Your task to perform on an android device: open app "VLC for Android" (install if not already installed), go to login, and select forgot password Image 0: 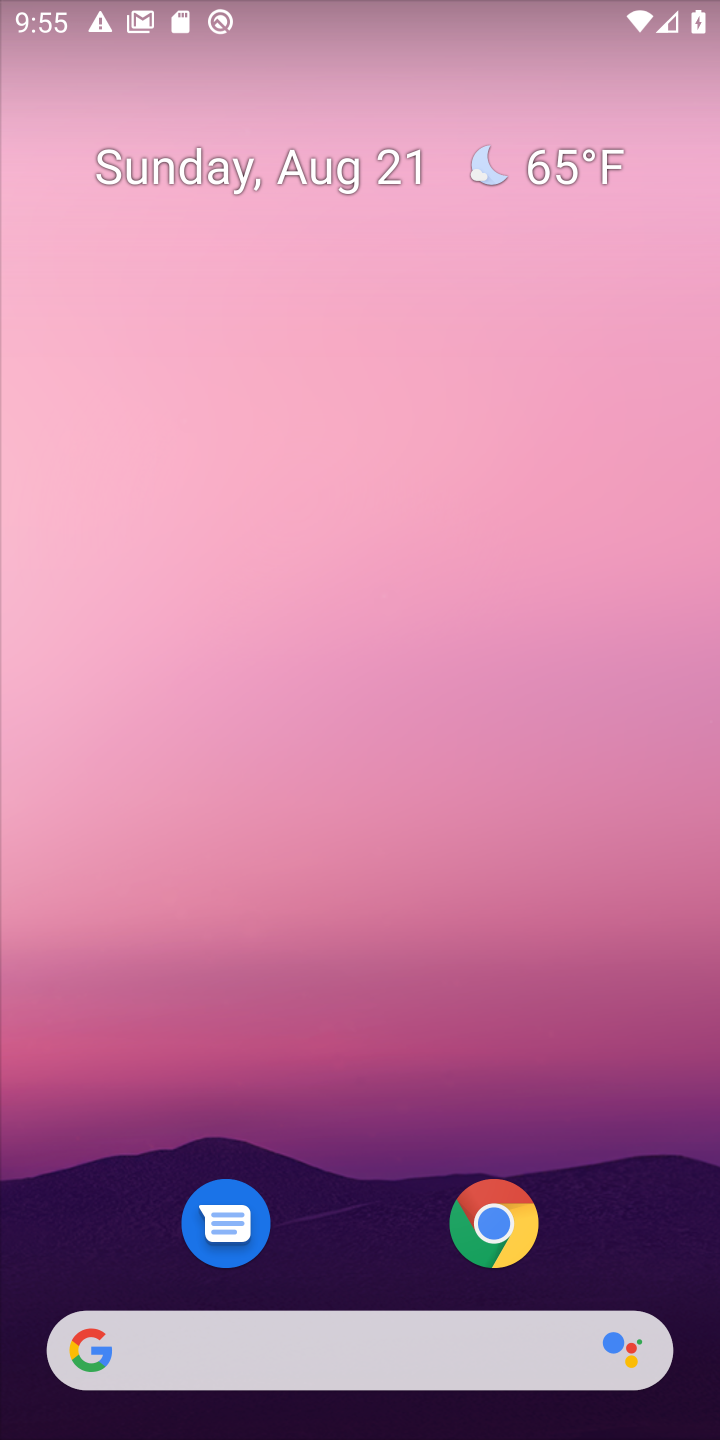
Step 0: press home button
Your task to perform on an android device: open app "VLC for Android" (install if not already installed), go to login, and select forgot password Image 1: 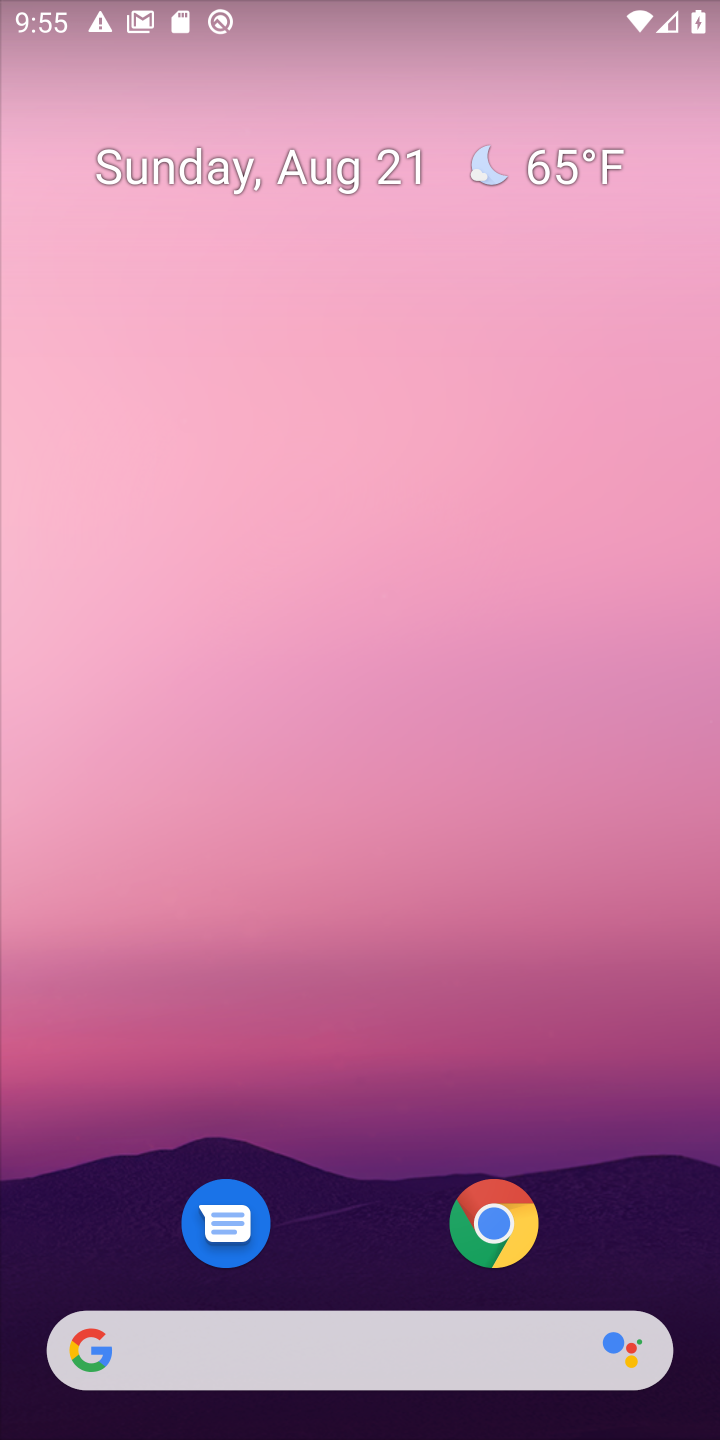
Step 1: drag from (621, 1131) to (589, 199)
Your task to perform on an android device: open app "VLC for Android" (install if not already installed), go to login, and select forgot password Image 2: 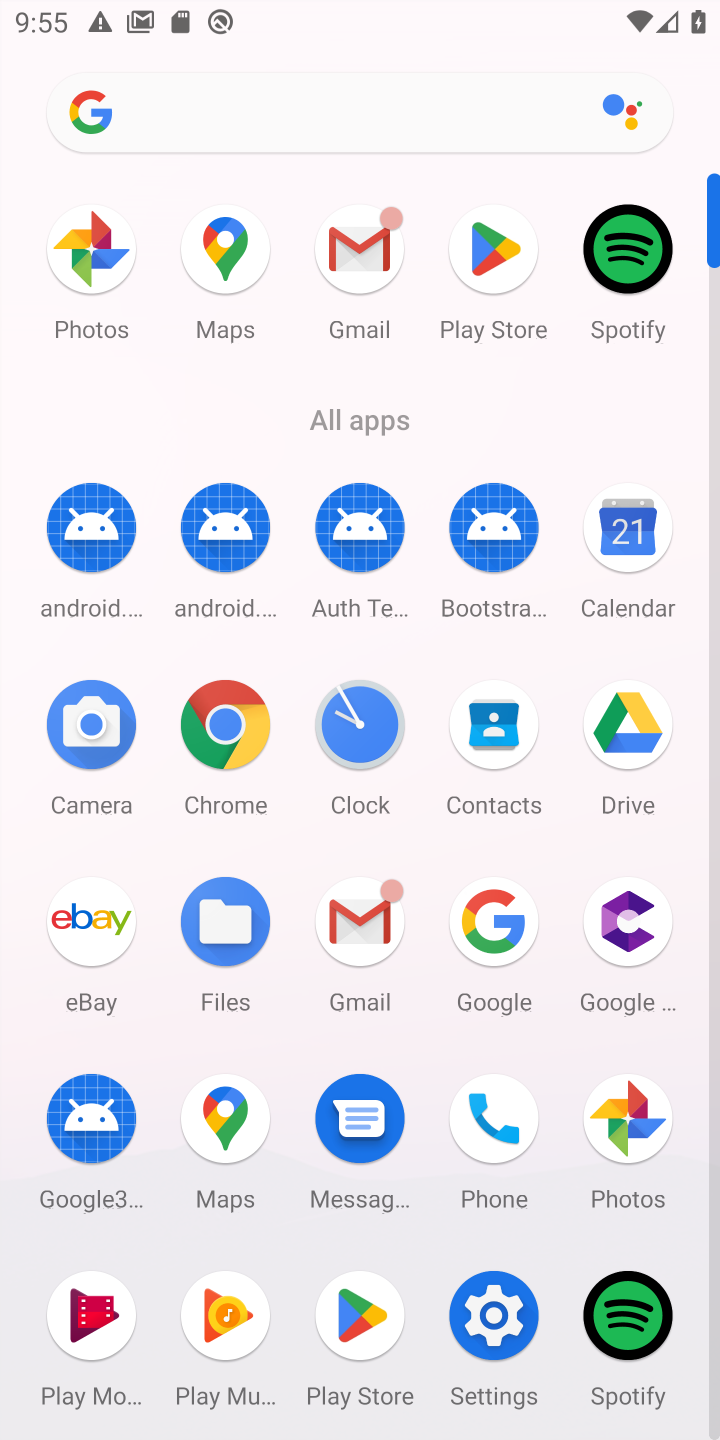
Step 2: click (501, 257)
Your task to perform on an android device: open app "VLC for Android" (install if not already installed), go to login, and select forgot password Image 3: 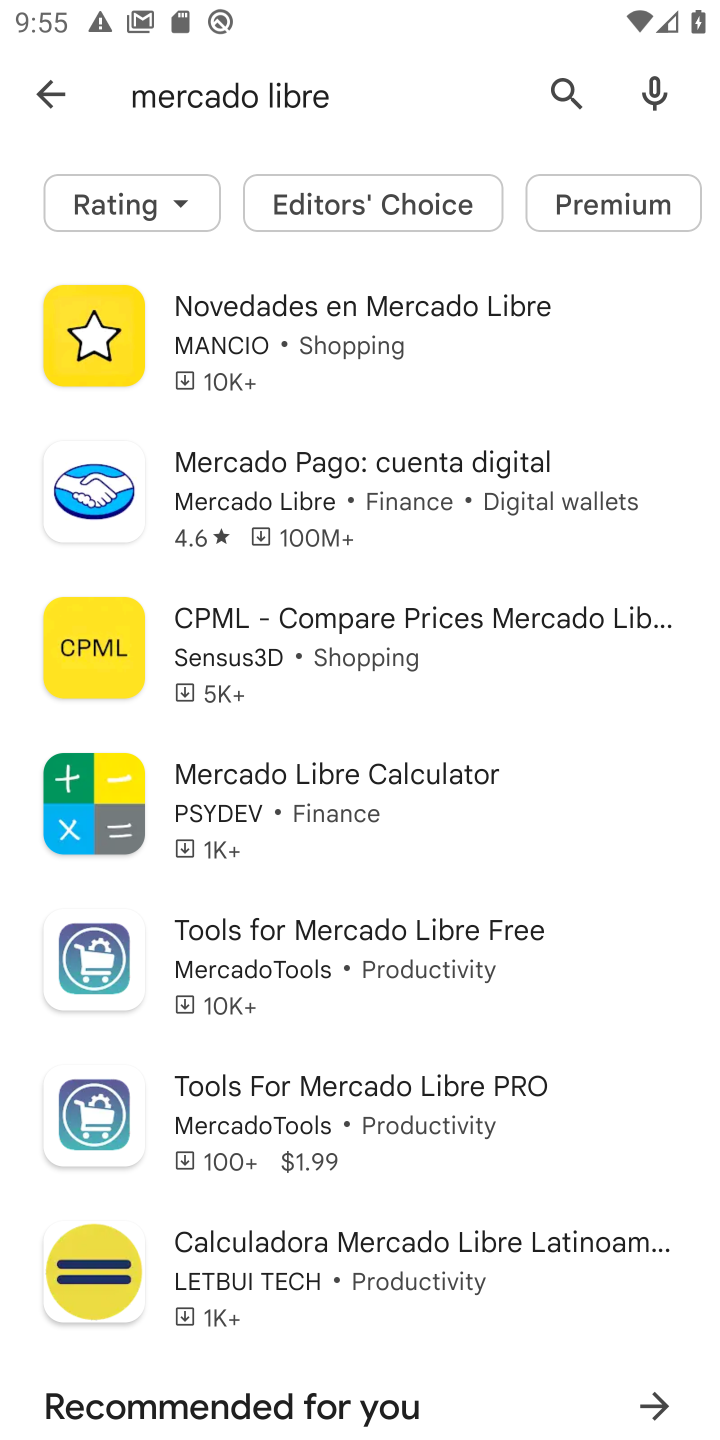
Step 3: press back button
Your task to perform on an android device: open app "VLC for Android" (install if not already installed), go to login, and select forgot password Image 4: 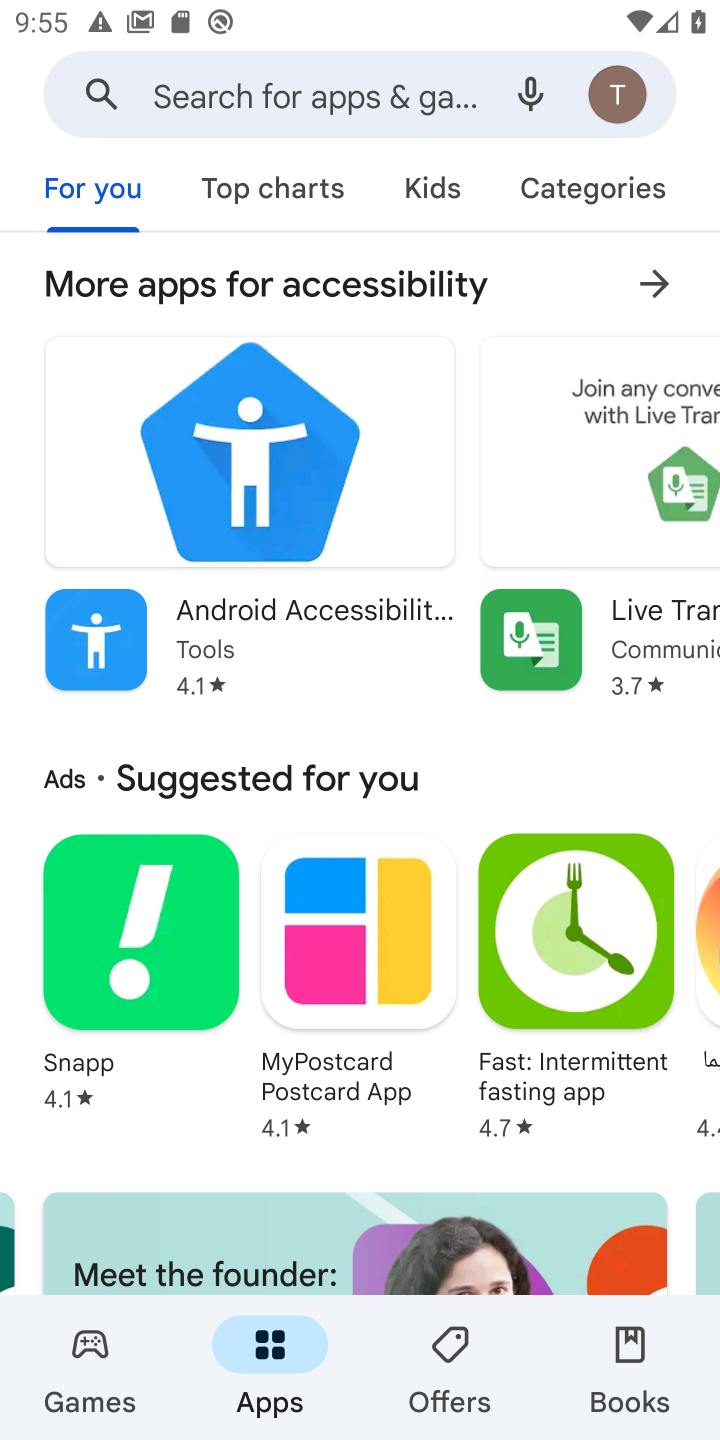
Step 4: click (319, 88)
Your task to perform on an android device: open app "VLC for Android" (install if not already installed), go to login, and select forgot password Image 5: 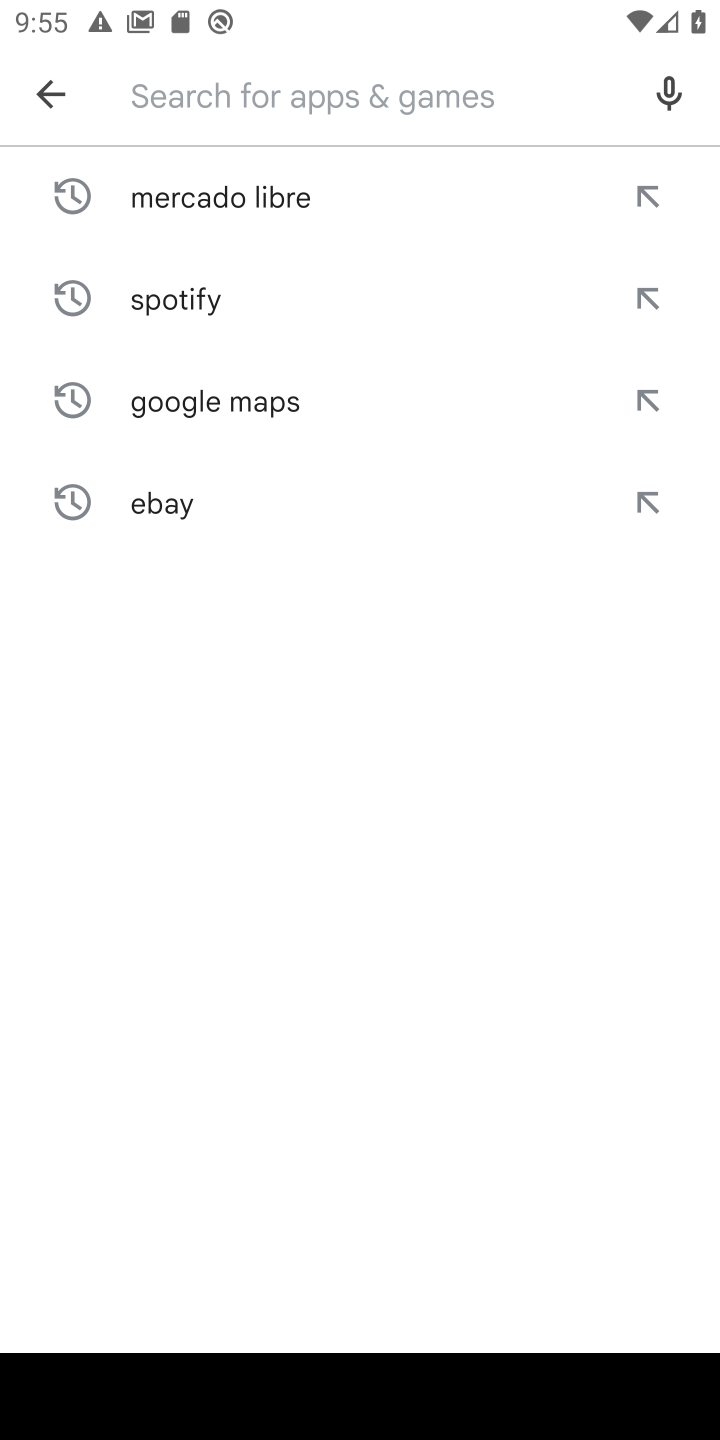
Step 5: type "VLC for Android"
Your task to perform on an android device: open app "VLC for Android" (install if not already installed), go to login, and select forgot password Image 6: 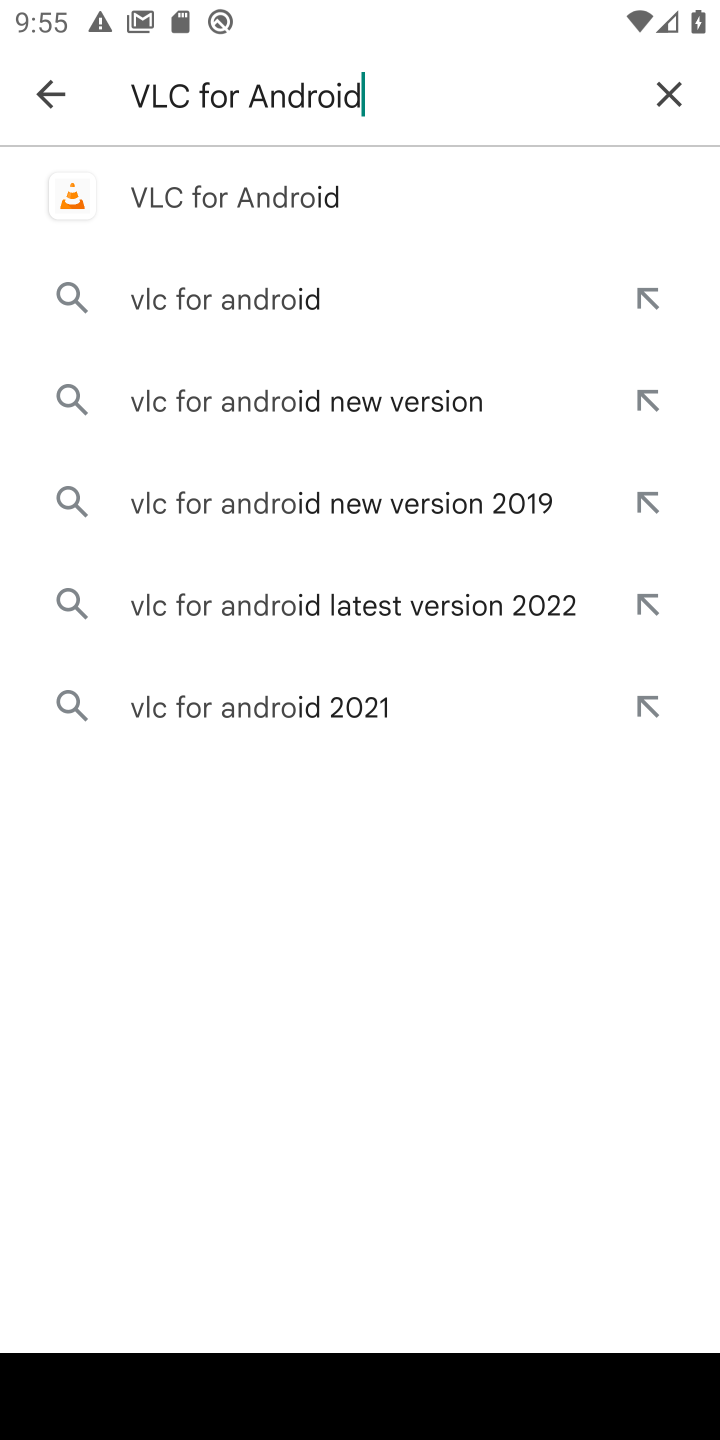
Step 6: press enter
Your task to perform on an android device: open app "VLC for Android" (install if not already installed), go to login, and select forgot password Image 7: 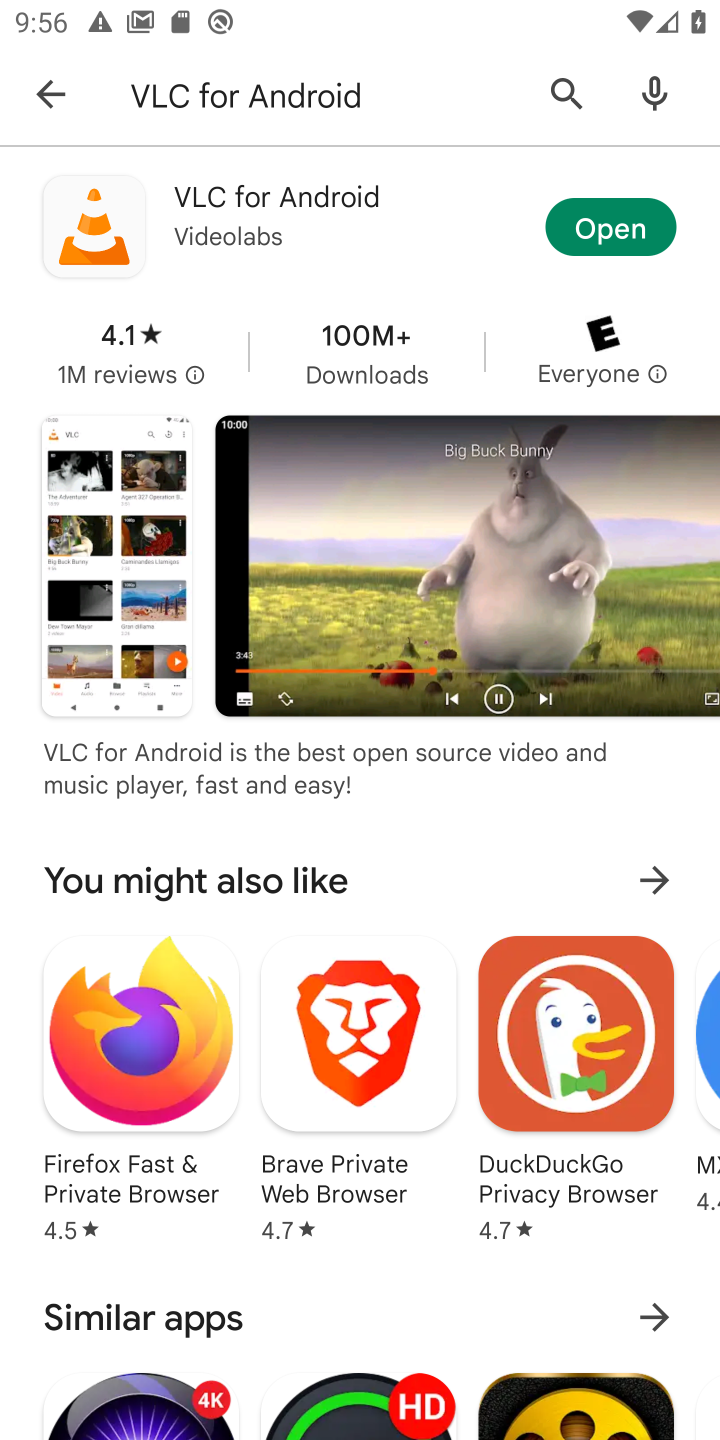
Step 7: click (614, 228)
Your task to perform on an android device: open app "VLC for Android" (install if not already installed), go to login, and select forgot password Image 8: 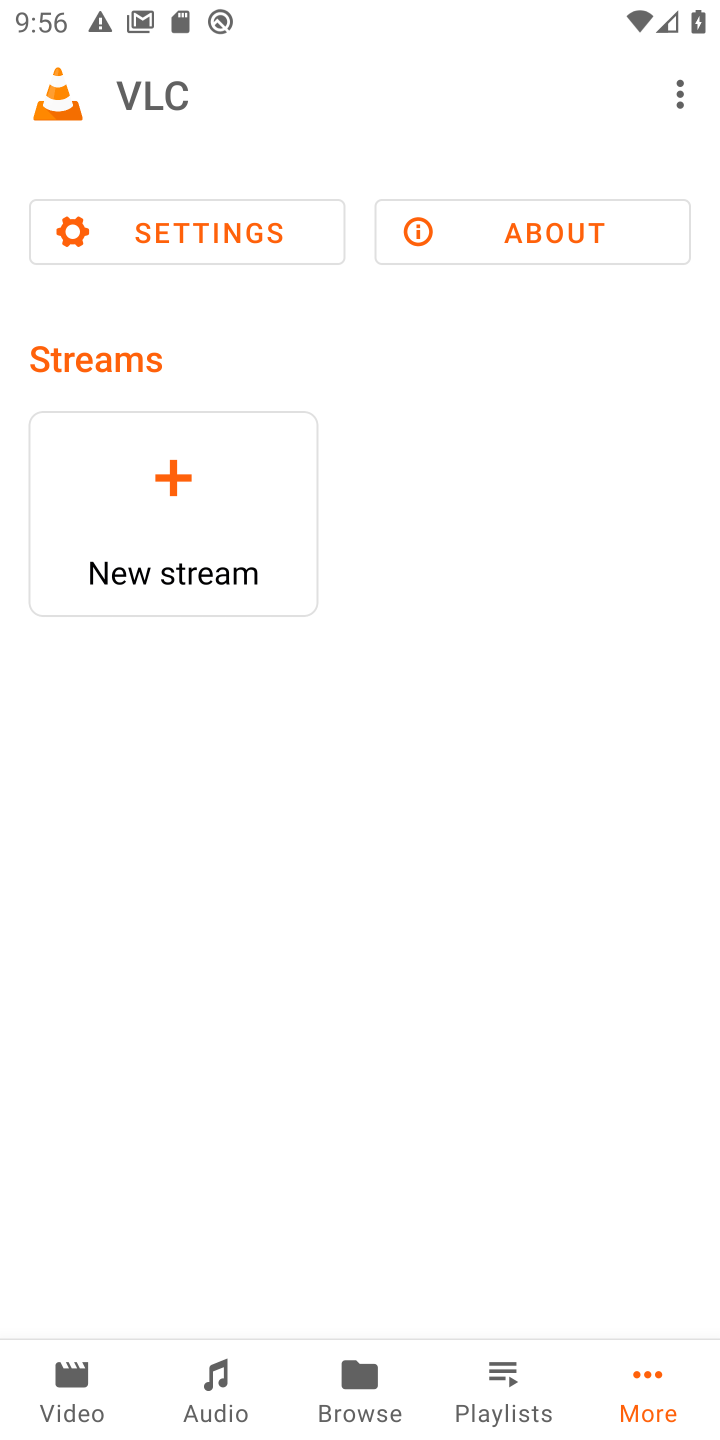
Step 8: click (60, 96)
Your task to perform on an android device: open app "VLC for Android" (install if not already installed), go to login, and select forgot password Image 9: 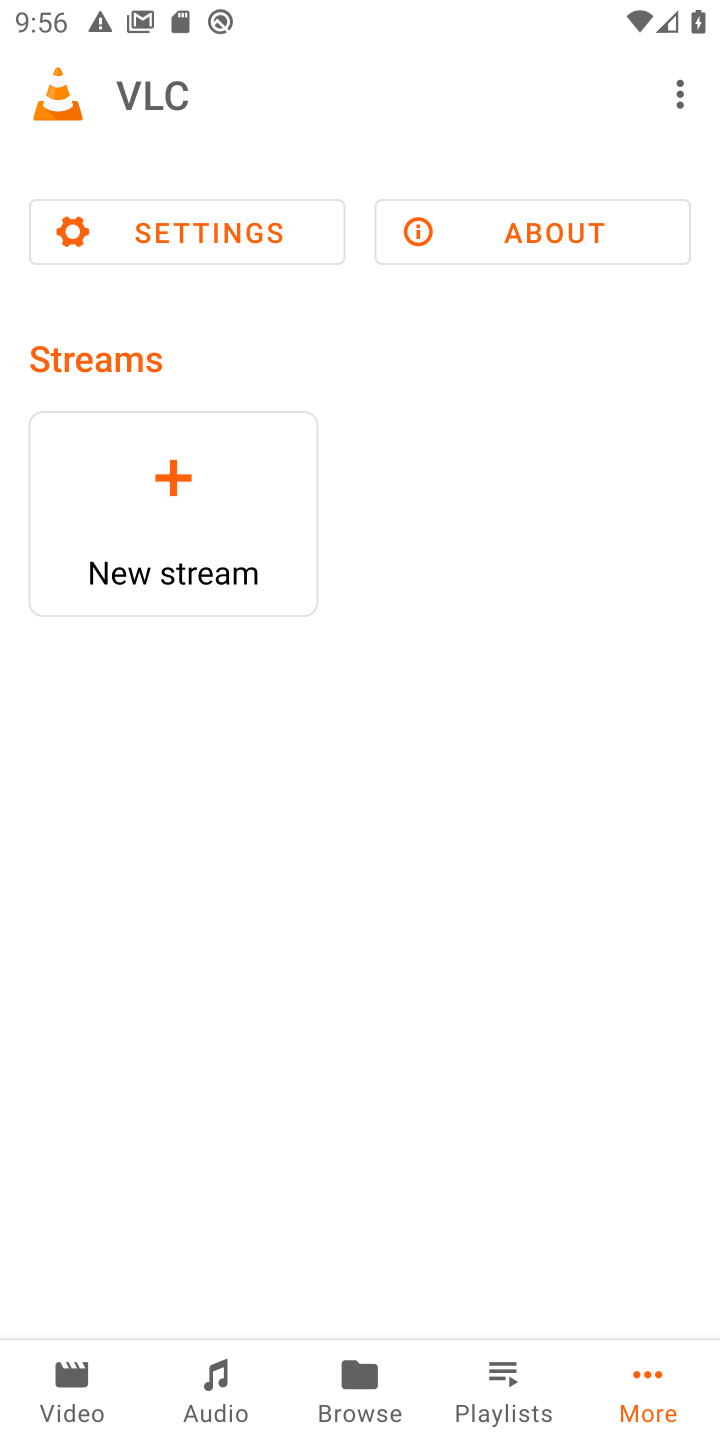
Step 9: click (679, 101)
Your task to perform on an android device: open app "VLC for Android" (install if not already installed), go to login, and select forgot password Image 10: 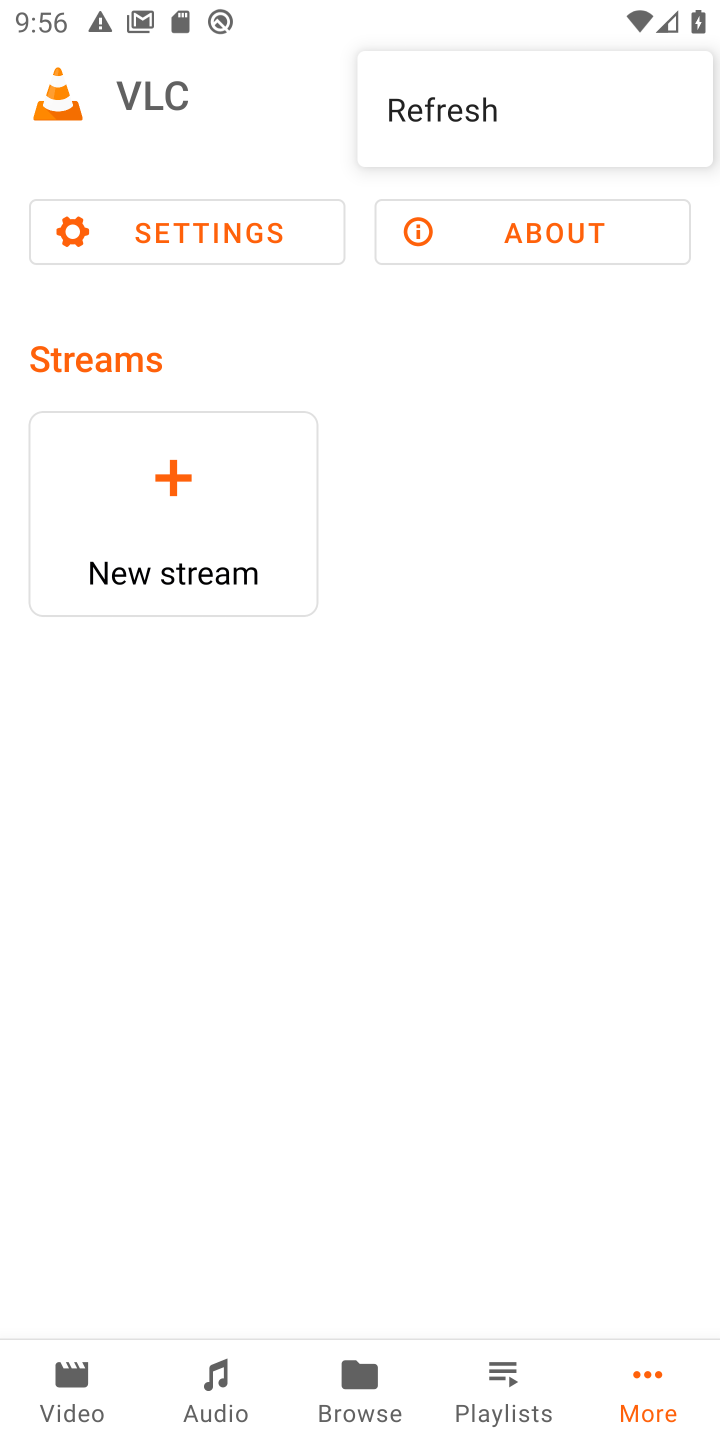
Step 10: click (617, 478)
Your task to perform on an android device: open app "VLC for Android" (install if not already installed), go to login, and select forgot password Image 11: 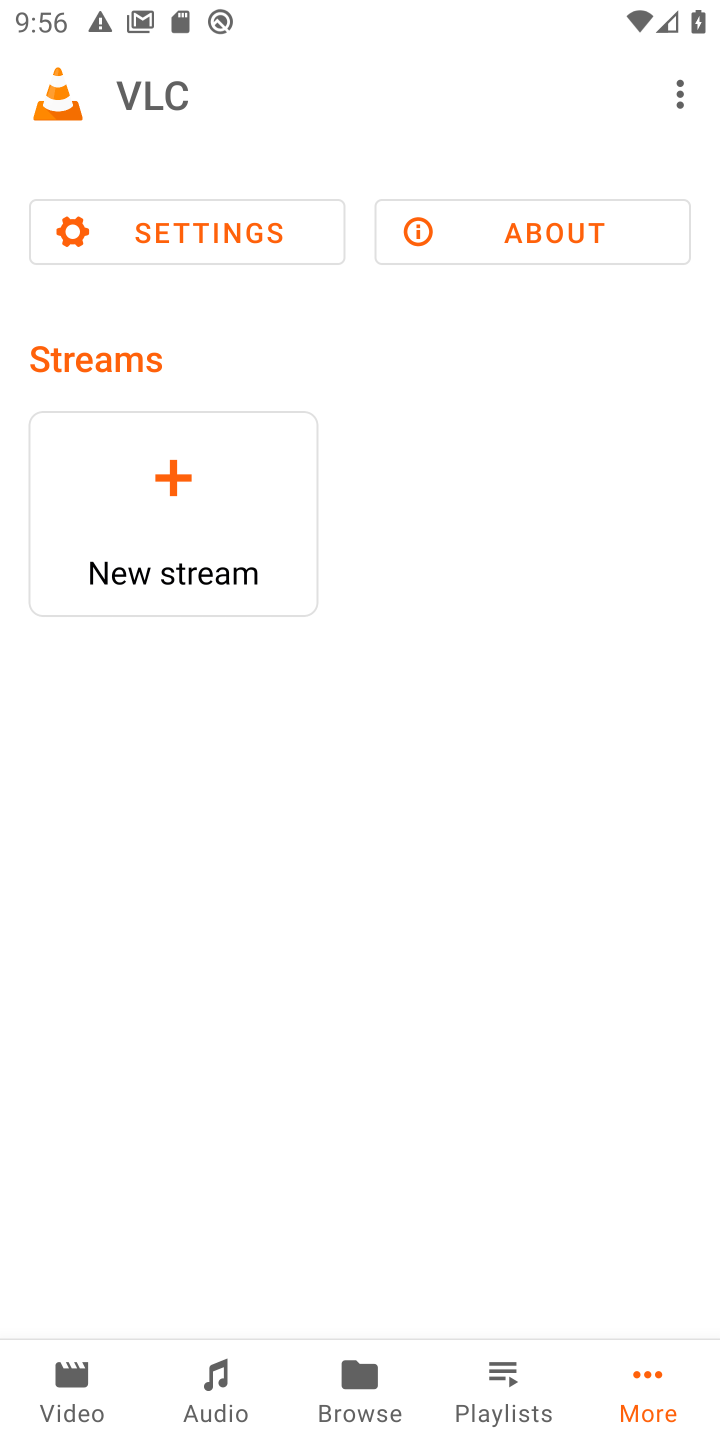
Step 11: click (651, 1396)
Your task to perform on an android device: open app "VLC for Android" (install if not already installed), go to login, and select forgot password Image 12: 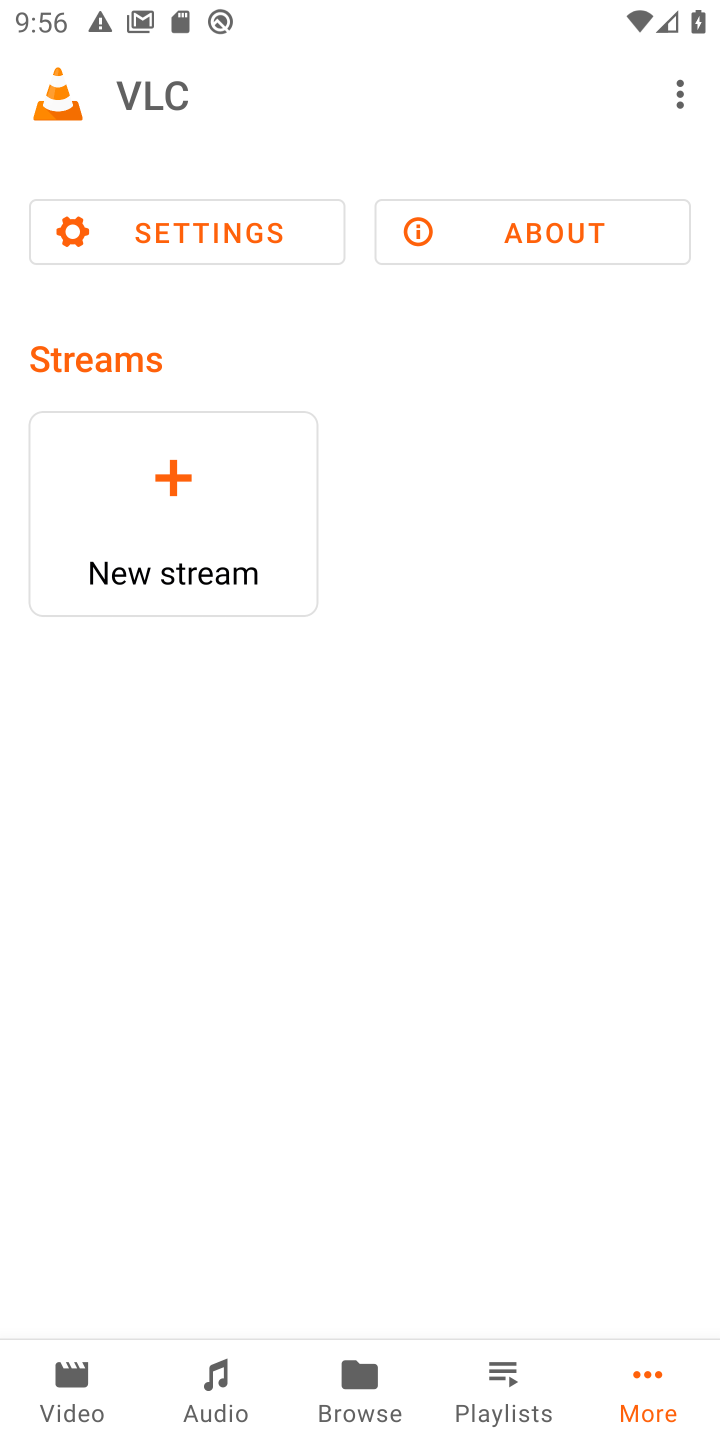
Step 12: click (201, 235)
Your task to perform on an android device: open app "VLC for Android" (install if not already installed), go to login, and select forgot password Image 13: 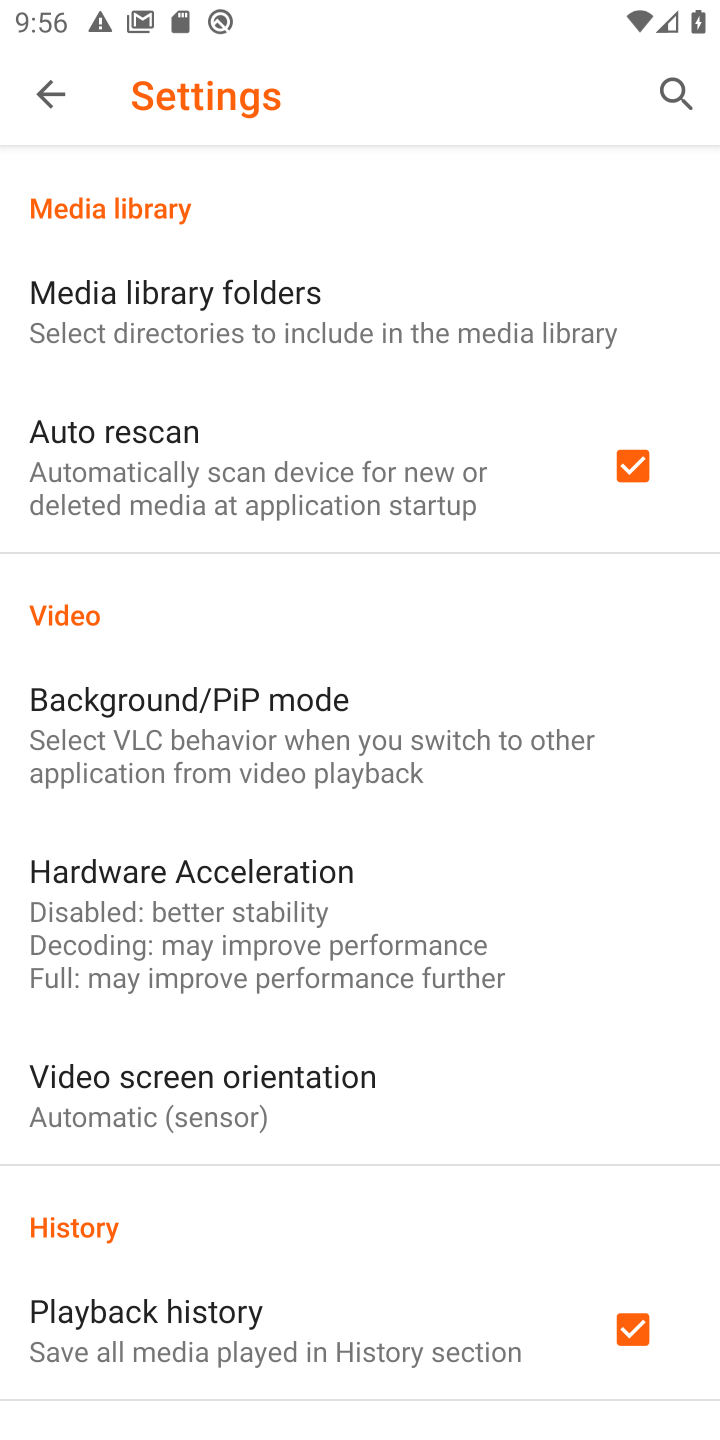
Step 13: drag from (518, 952) to (528, 411)
Your task to perform on an android device: open app "VLC for Android" (install if not already installed), go to login, and select forgot password Image 14: 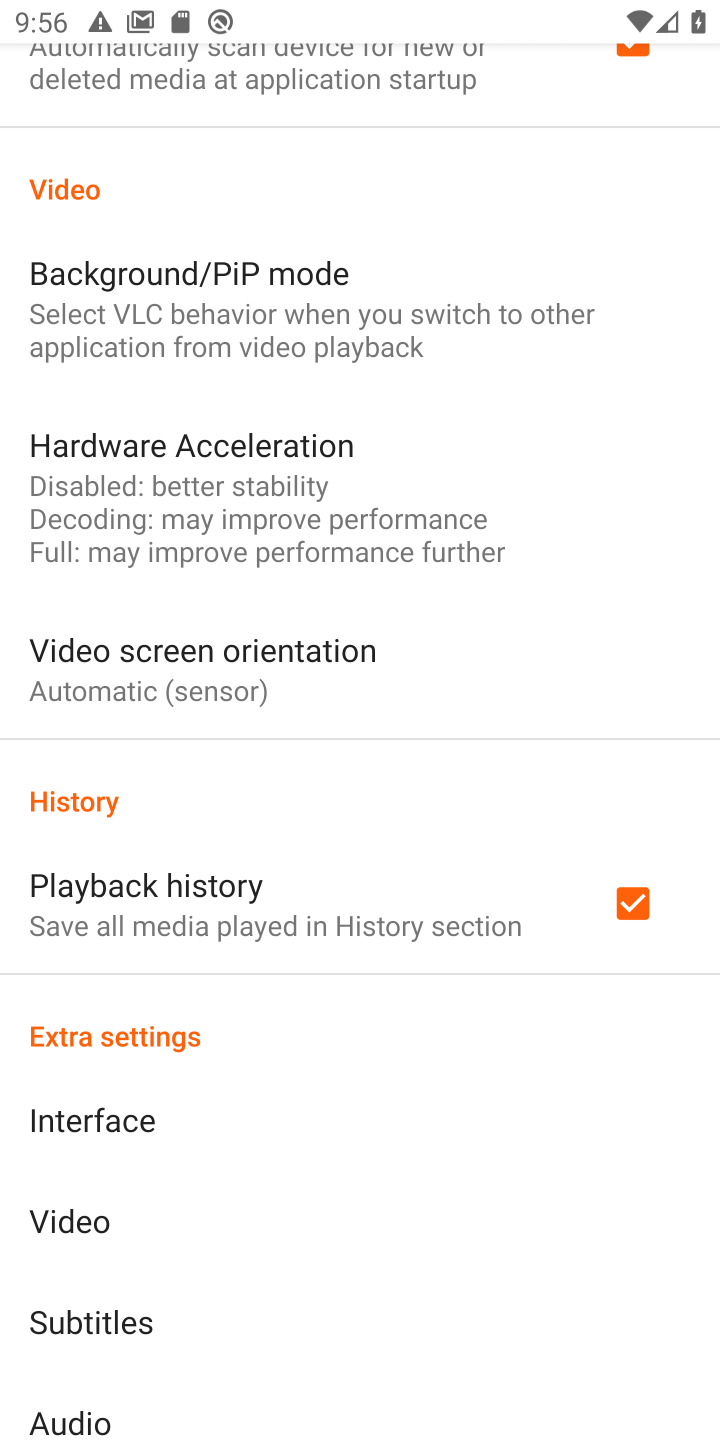
Step 14: press back button
Your task to perform on an android device: open app "VLC for Android" (install if not already installed), go to login, and select forgot password Image 15: 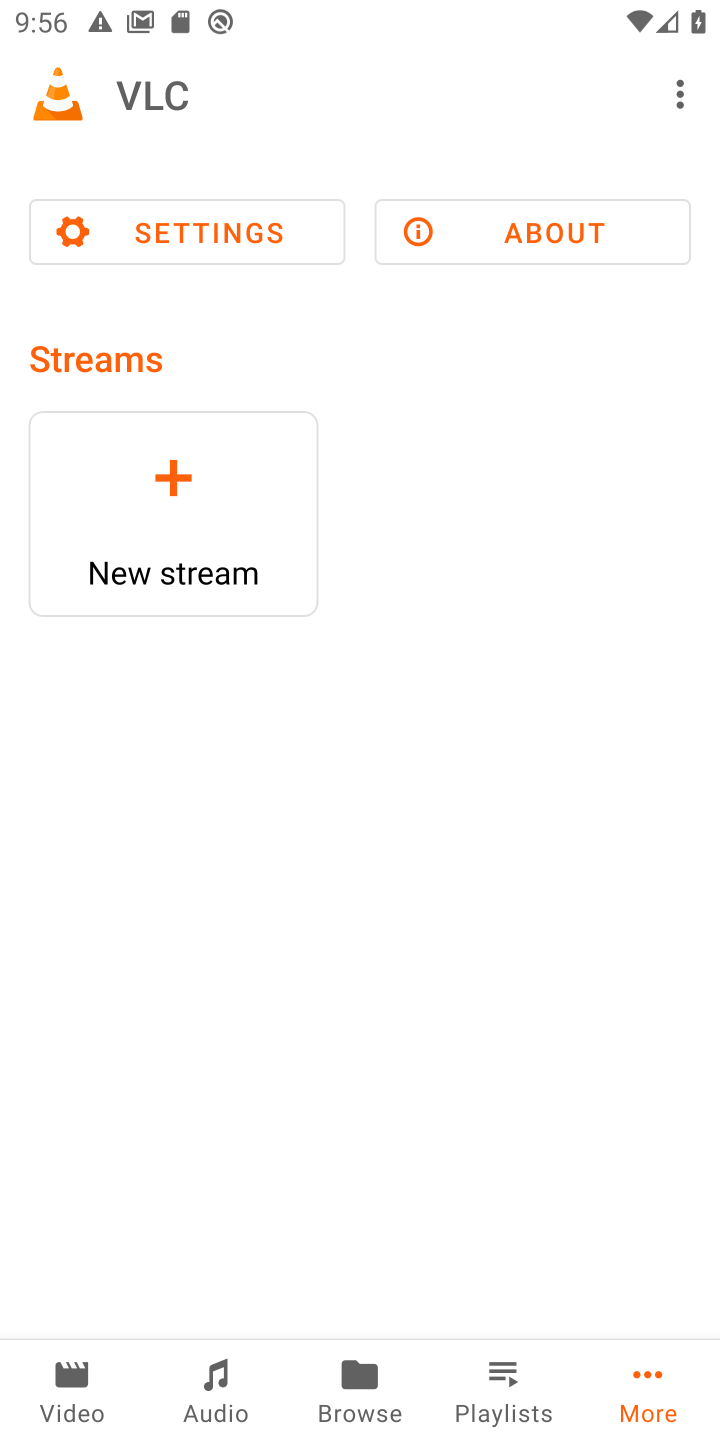
Step 15: click (165, 96)
Your task to perform on an android device: open app "VLC for Android" (install if not already installed), go to login, and select forgot password Image 16: 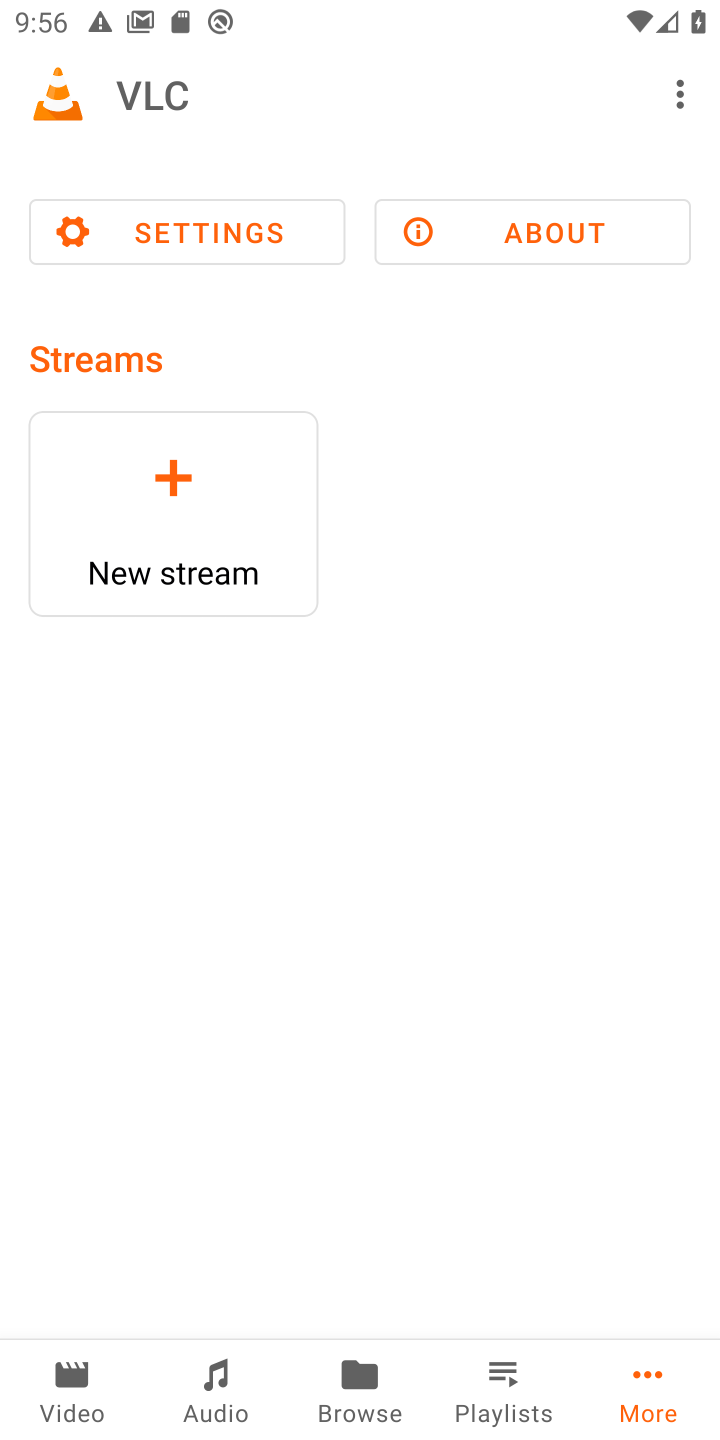
Step 16: click (152, 94)
Your task to perform on an android device: open app "VLC for Android" (install if not already installed), go to login, and select forgot password Image 17: 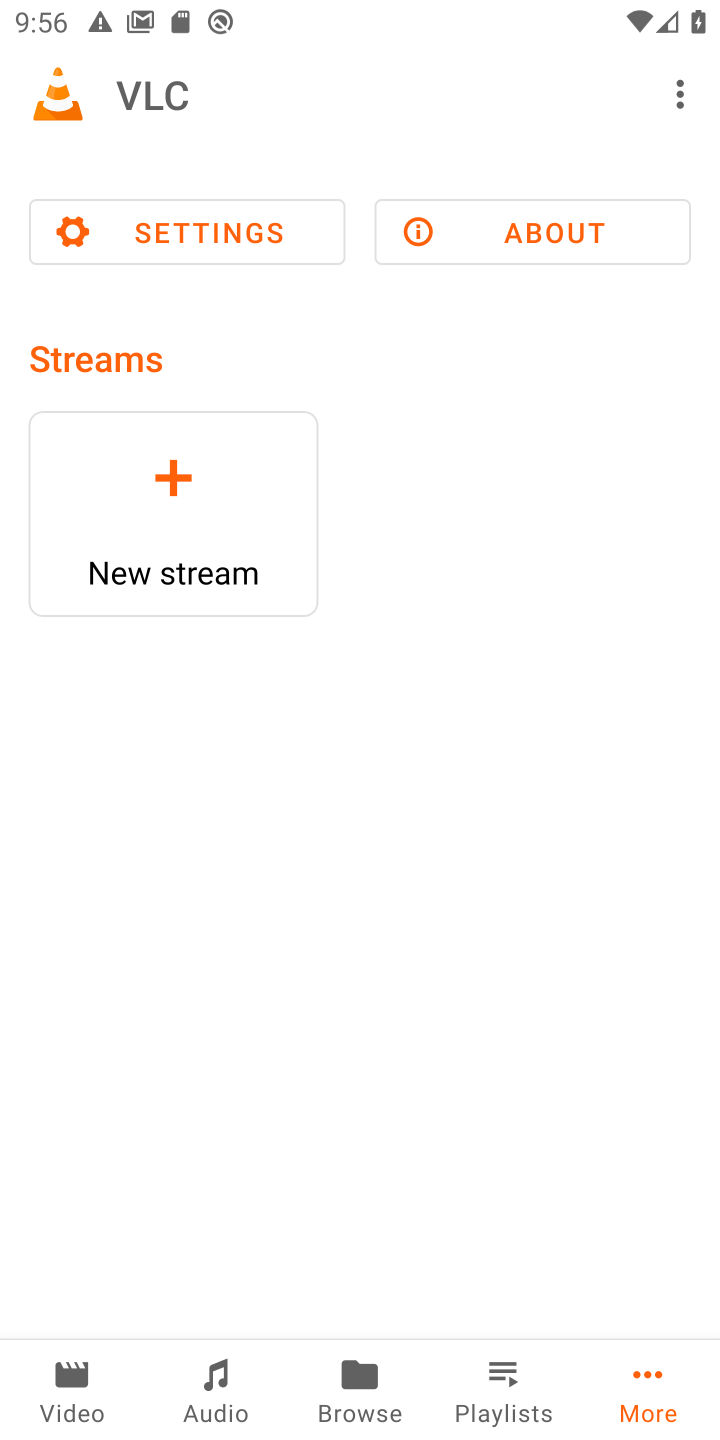
Step 17: click (45, 89)
Your task to perform on an android device: open app "VLC for Android" (install if not already installed), go to login, and select forgot password Image 18: 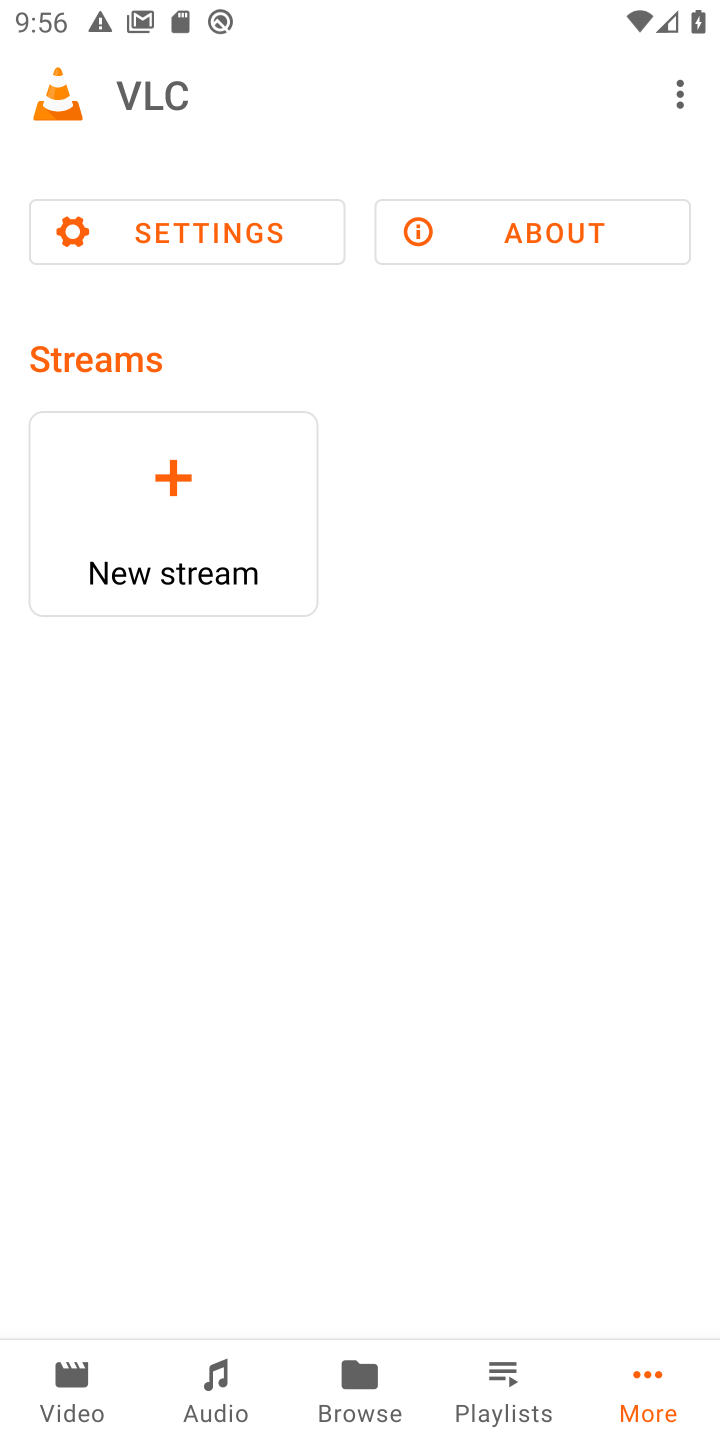
Step 18: task complete